Your task to perform on an android device: Go to Yahoo.com Image 0: 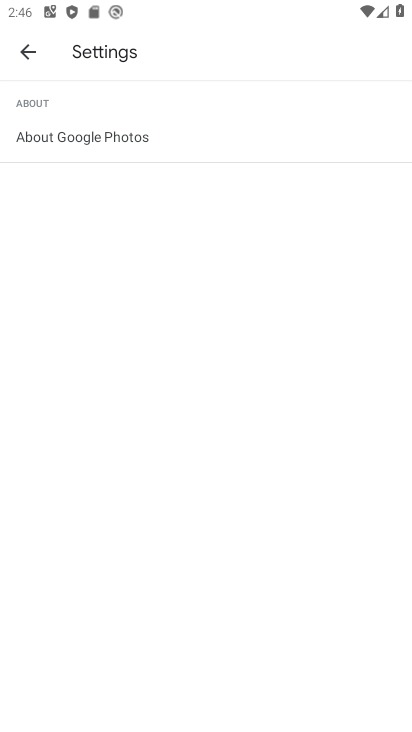
Step 0: press home button
Your task to perform on an android device: Go to Yahoo.com Image 1: 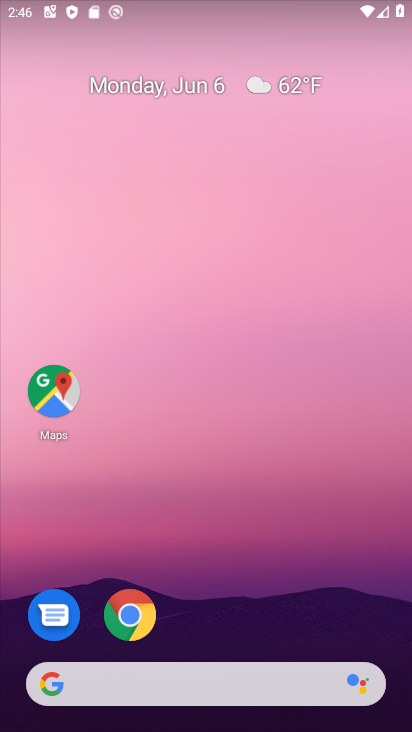
Step 1: drag from (277, 629) to (10, 128)
Your task to perform on an android device: Go to Yahoo.com Image 2: 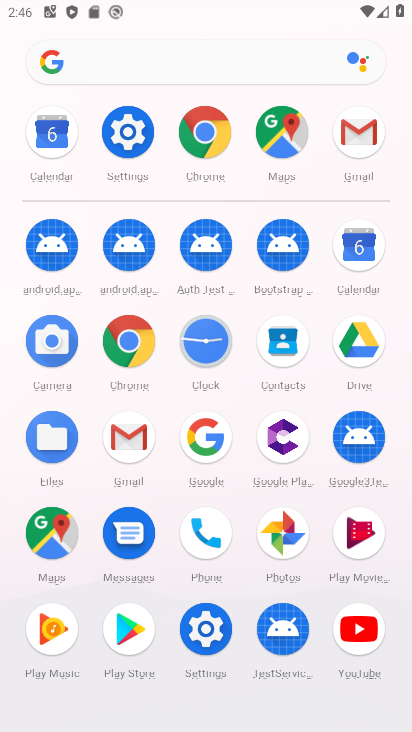
Step 2: click (133, 359)
Your task to perform on an android device: Go to Yahoo.com Image 3: 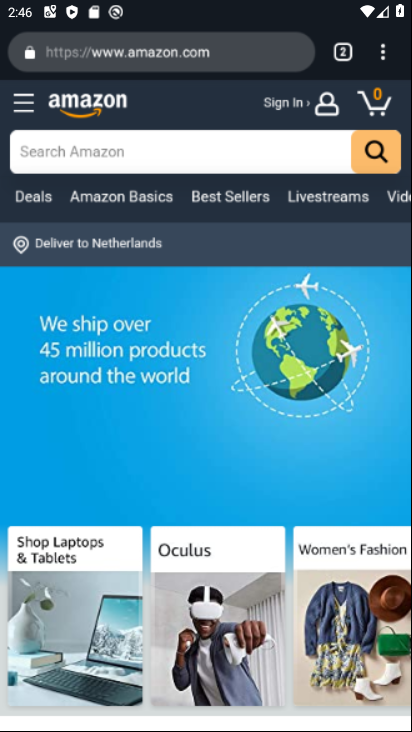
Step 3: click (120, 337)
Your task to perform on an android device: Go to Yahoo.com Image 4: 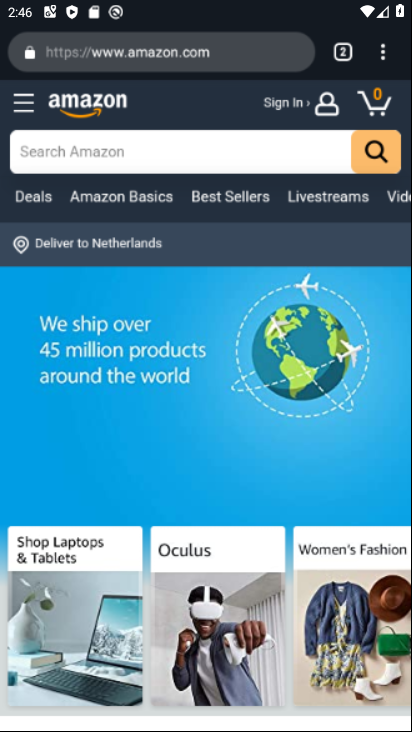
Step 4: click (191, 52)
Your task to perform on an android device: Go to Yahoo.com Image 5: 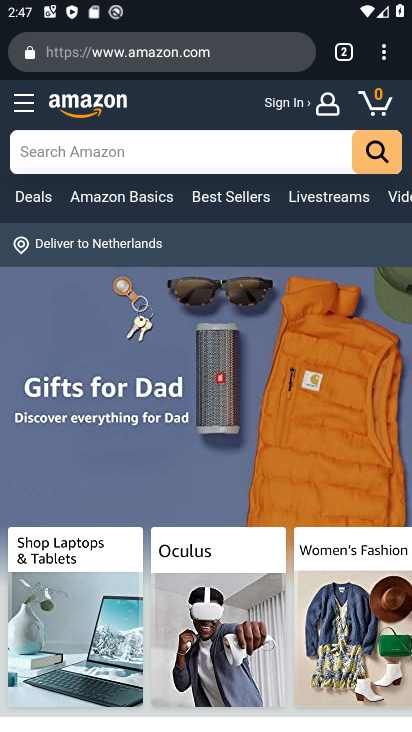
Step 5: click (191, 52)
Your task to perform on an android device: Go to Yahoo.com Image 6: 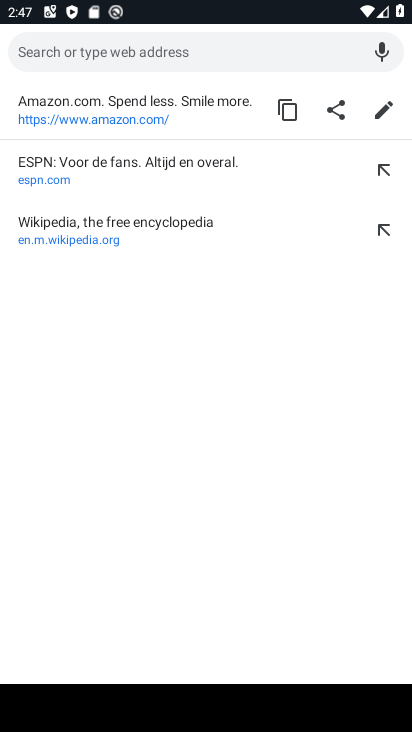
Step 6: type "yahoo.com"
Your task to perform on an android device: Go to Yahoo.com Image 7: 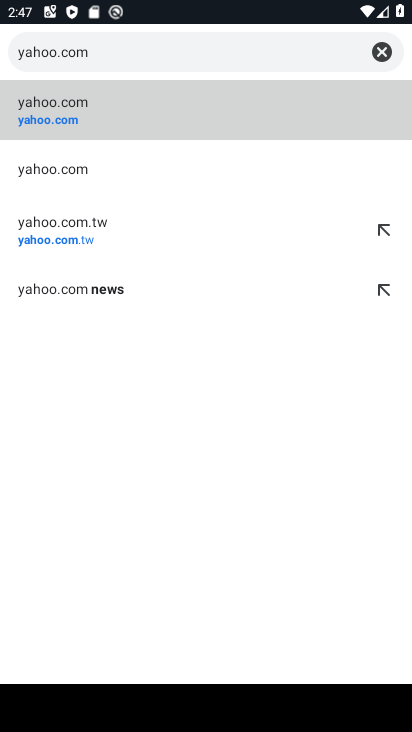
Step 7: click (299, 101)
Your task to perform on an android device: Go to Yahoo.com Image 8: 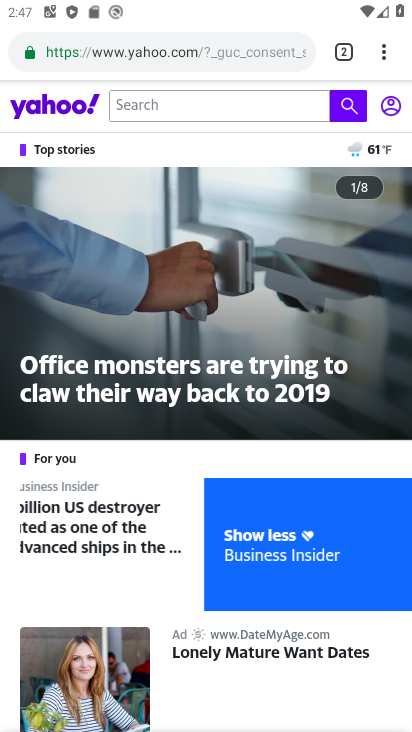
Step 8: task complete